Your task to perform on an android device: turn off priority inbox in the gmail app Image 0: 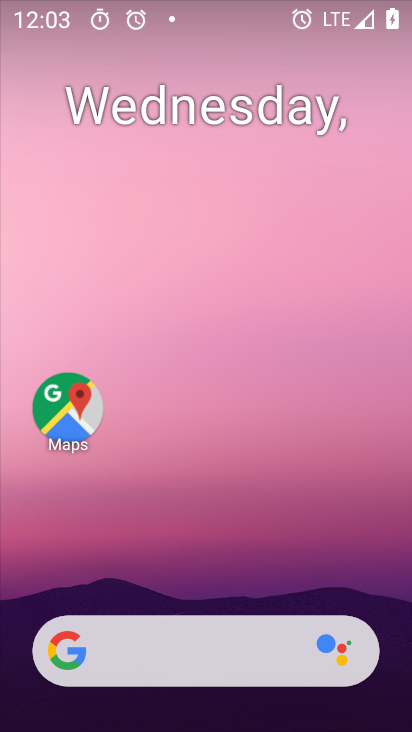
Step 0: drag from (196, 633) to (251, 5)
Your task to perform on an android device: turn off priority inbox in the gmail app Image 1: 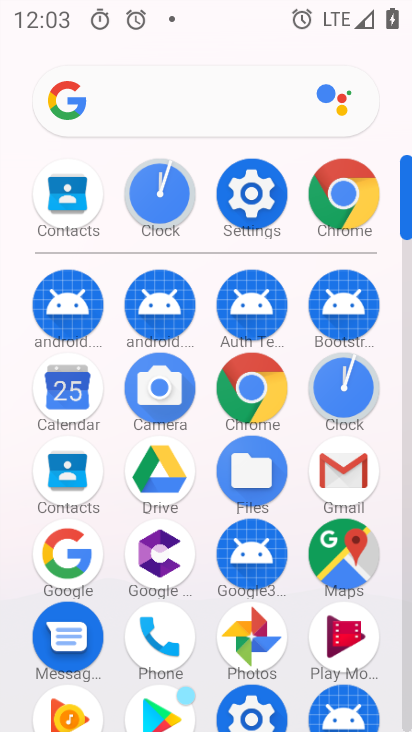
Step 1: click (358, 467)
Your task to perform on an android device: turn off priority inbox in the gmail app Image 2: 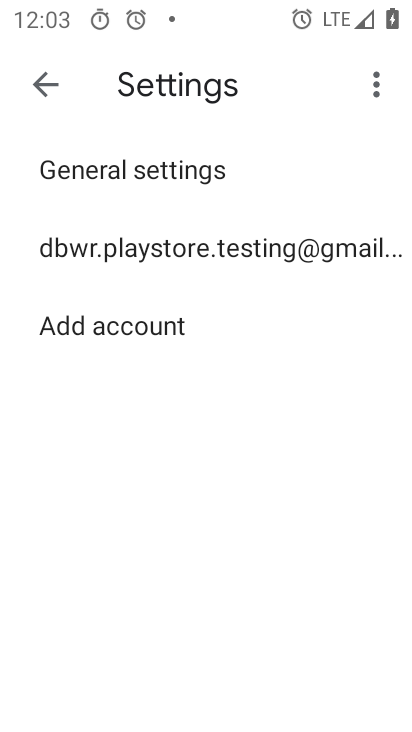
Step 2: click (185, 247)
Your task to perform on an android device: turn off priority inbox in the gmail app Image 3: 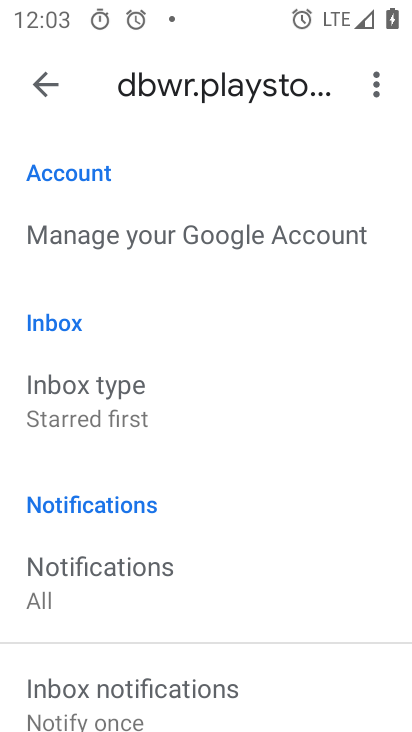
Step 3: click (105, 407)
Your task to perform on an android device: turn off priority inbox in the gmail app Image 4: 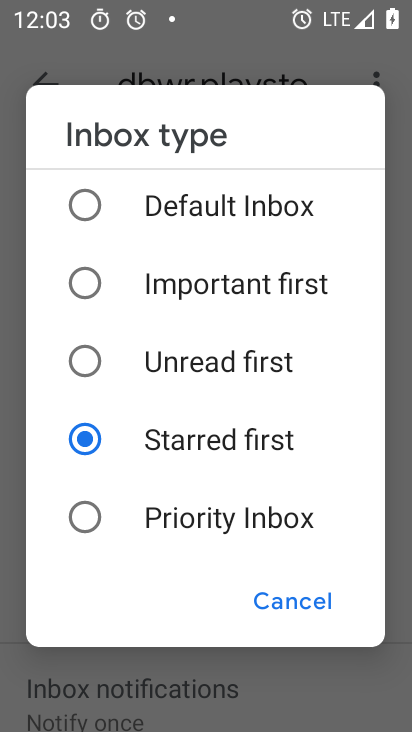
Step 4: click (176, 194)
Your task to perform on an android device: turn off priority inbox in the gmail app Image 5: 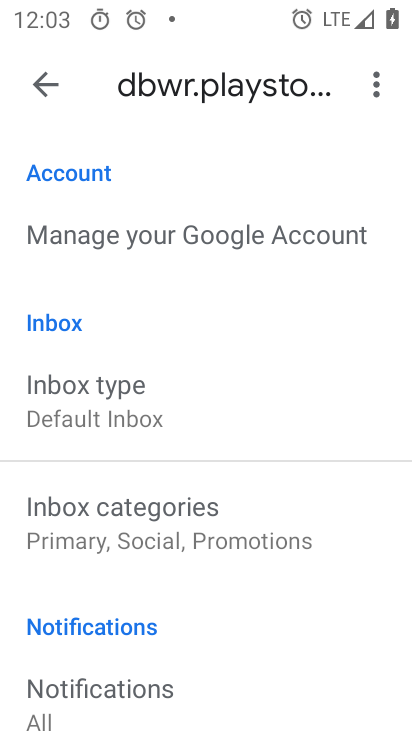
Step 5: task complete